Your task to perform on an android device: refresh tabs in the chrome app Image 0: 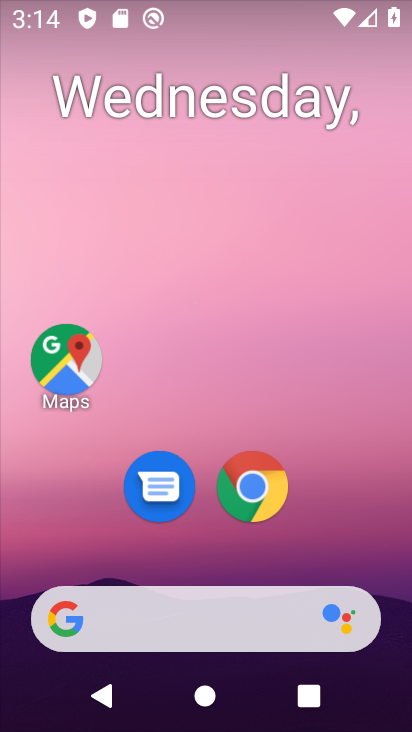
Step 0: click (266, 480)
Your task to perform on an android device: refresh tabs in the chrome app Image 1: 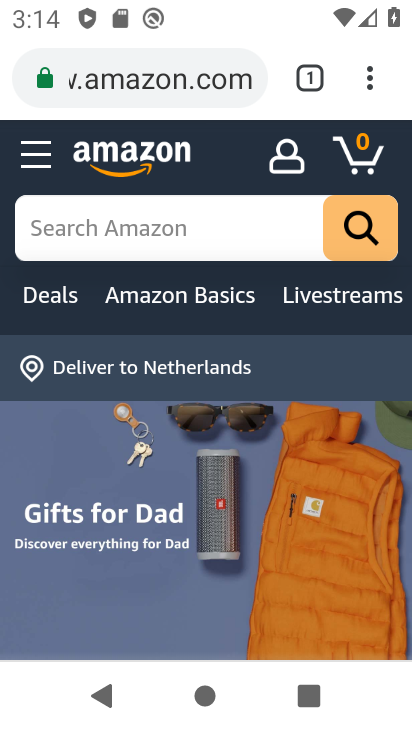
Step 1: click (366, 79)
Your task to perform on an android device: refresh tabs in the chrome app Image 2: 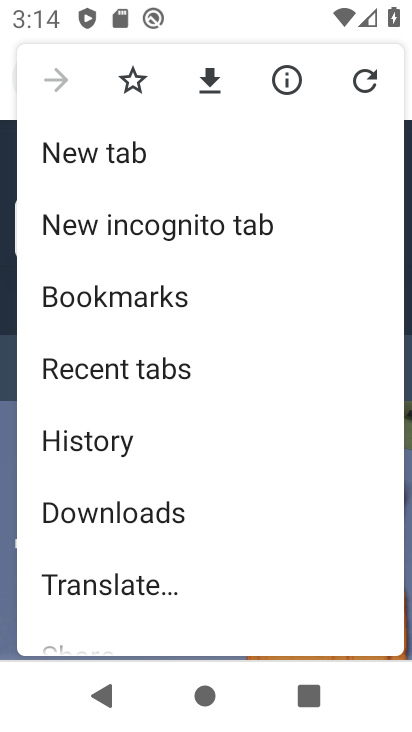
Step 2: click (374, 83)
Your task to perform on an android device: refresh tabs in the chrome app Image 3: 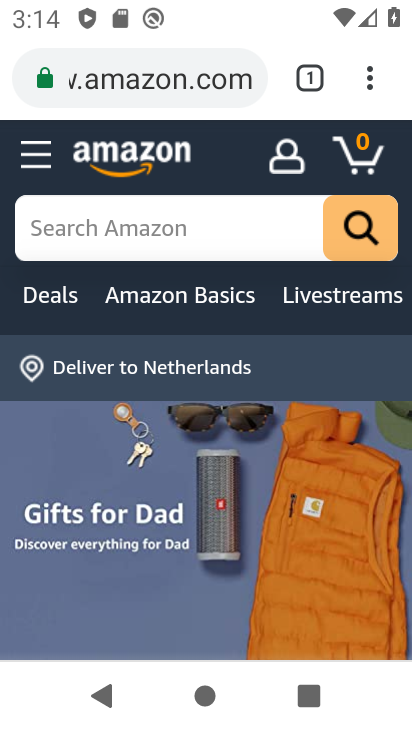
Step 3: task complete